Your task to perform on an android device: turn on airplane mode Image 0: 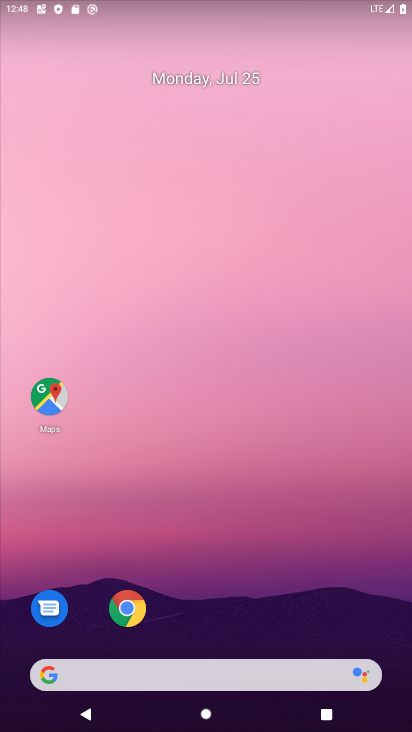
Step 0: drag from (245, 648) to (235, 8)
Your task to perform on an android device: turn on airplane mode Image 1: 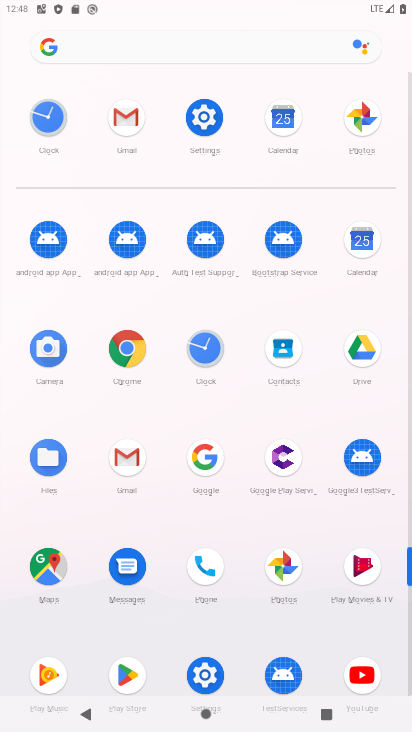
Step 1: click (202, 125)
Your task to perform on an android device: turn on airplane mode Image 2: 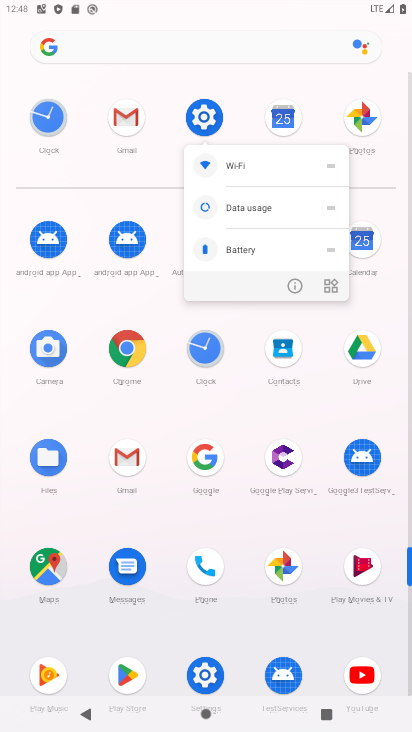
Step 2: click (202, 125)
Your task to perform on an android device: turn on airplane mode Image 3: 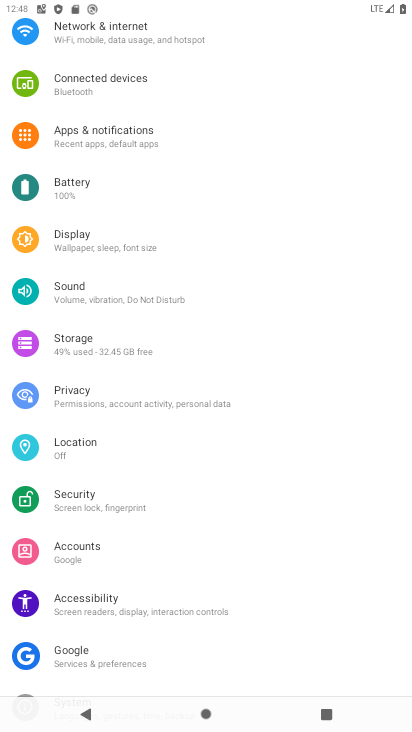
Step 3: click (141, 45)
Your task to perform on an android device: turn on airplane mode Image 4: 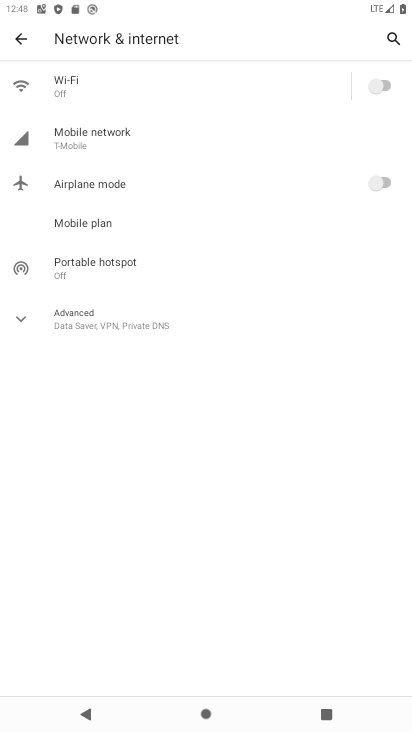
Step 4: click (373, 185)
Your task to perform on an android device: turn on airplane mode Image 5: 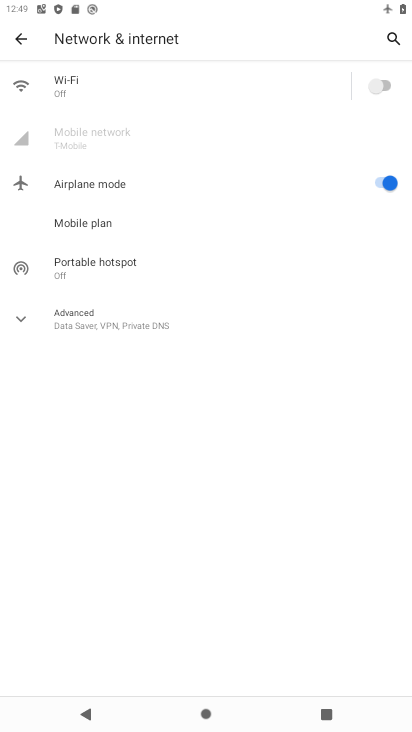
Step 5: task complete